Your task to perform on an android device: show emergency info Image 0: 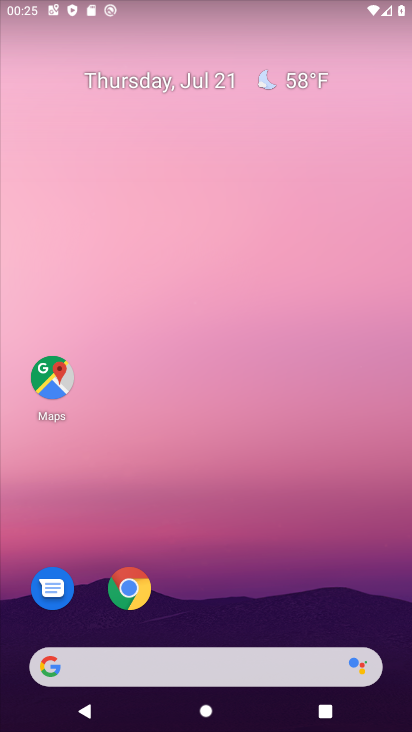
Step 0: drag from (210, 620) to (216, 206)
Your task to perform on an android device: show emergency info Image 1: 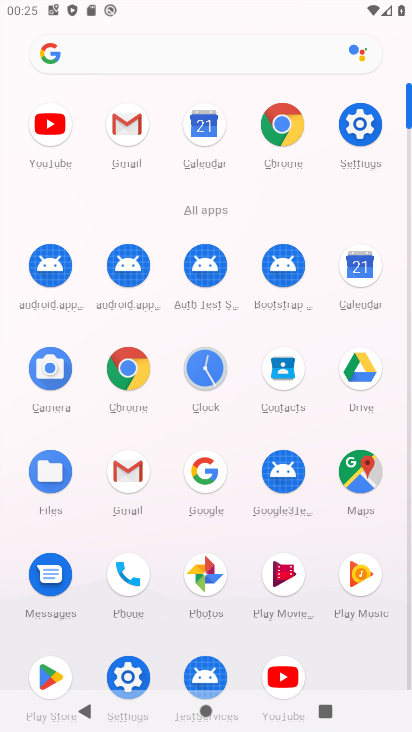
Step 1: click (132, 666)
Your task to perform on an android device: show emergency info Image 2: 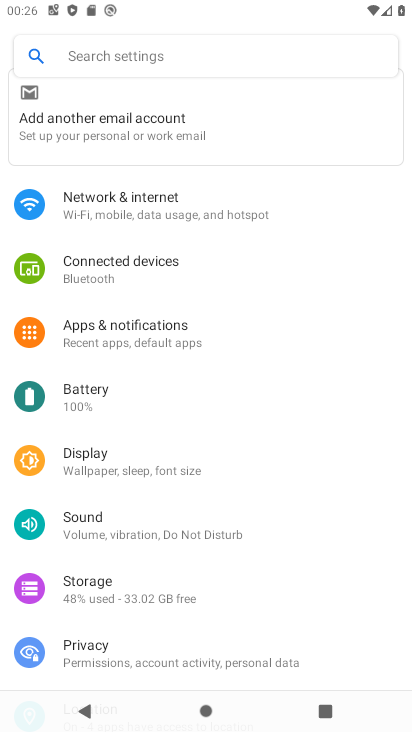
Step 2: drag from (215, 401) to (225, 178)
Your task to perform on an android device: show emergency info Image 3: 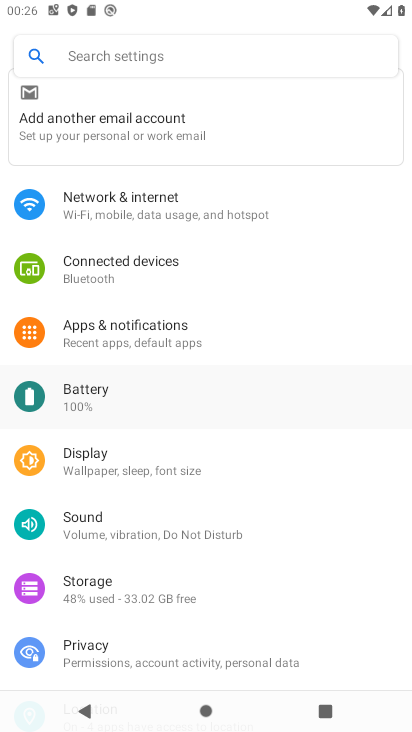
Step 3: drag from (160, 626) to (178, 341)
Your task to perform on an android device: show emergency info Image 4: 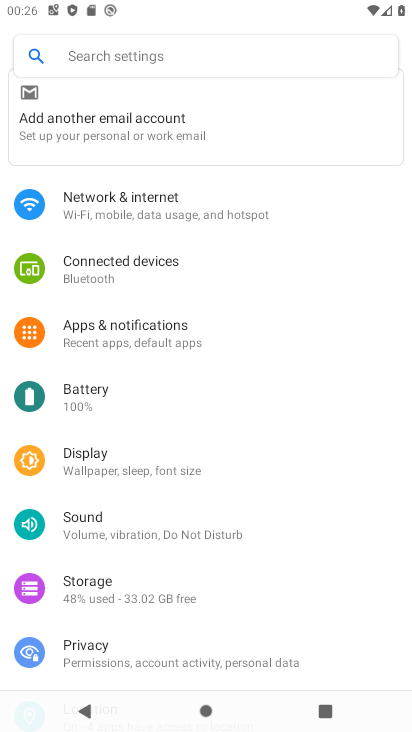
Step 4: drag from (170, 599) to (189, 251)
Your task to perform on an android device: show emergency info Image 5: 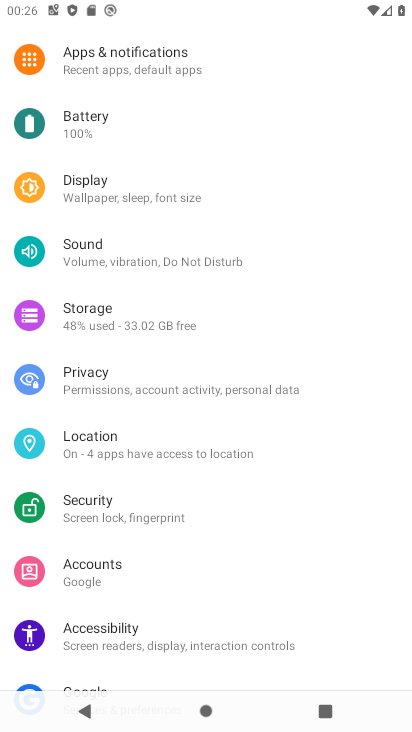
Step 5: drag from (136, 645) to (170, 177)
Your task to perform on an android device: show emergency info Image 6: 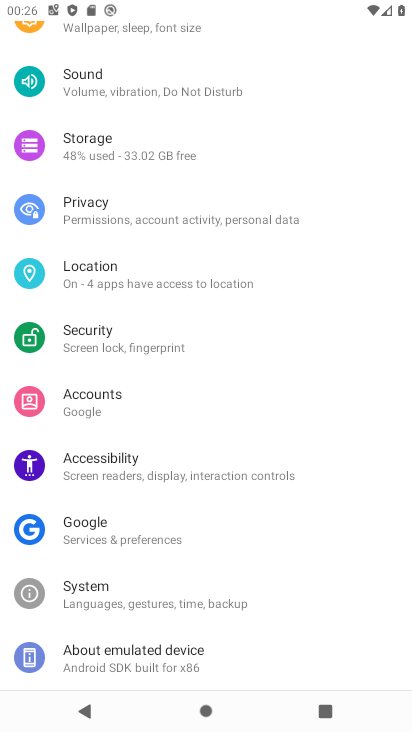
Step 6: click (150, 661)
Your task to perform on an android device: show emergency info Image 7: 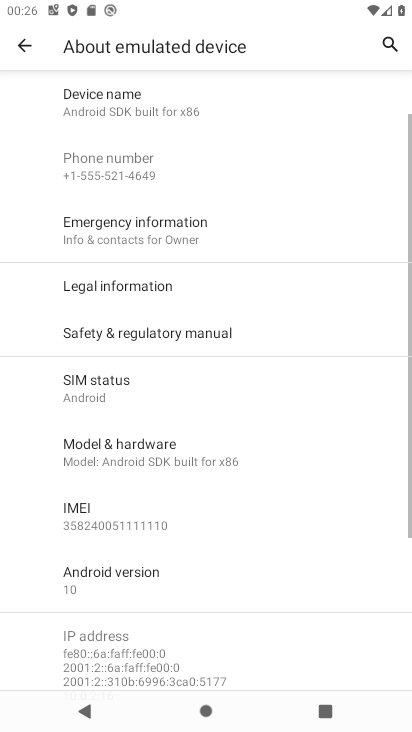
Step 7: click (152, 236)
Your task to perform on an android device: show emergency info Image 8: 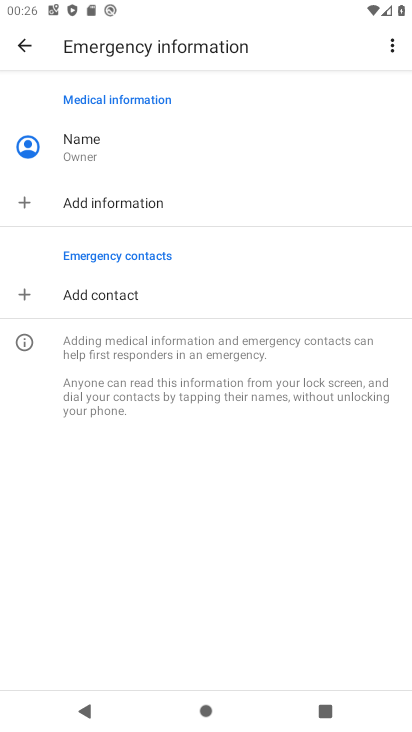
Step 8: task complete